Your task to perform on an android device: Add usb-c to usb-b to the cart on walmart.com, then select checkout. Image 0: 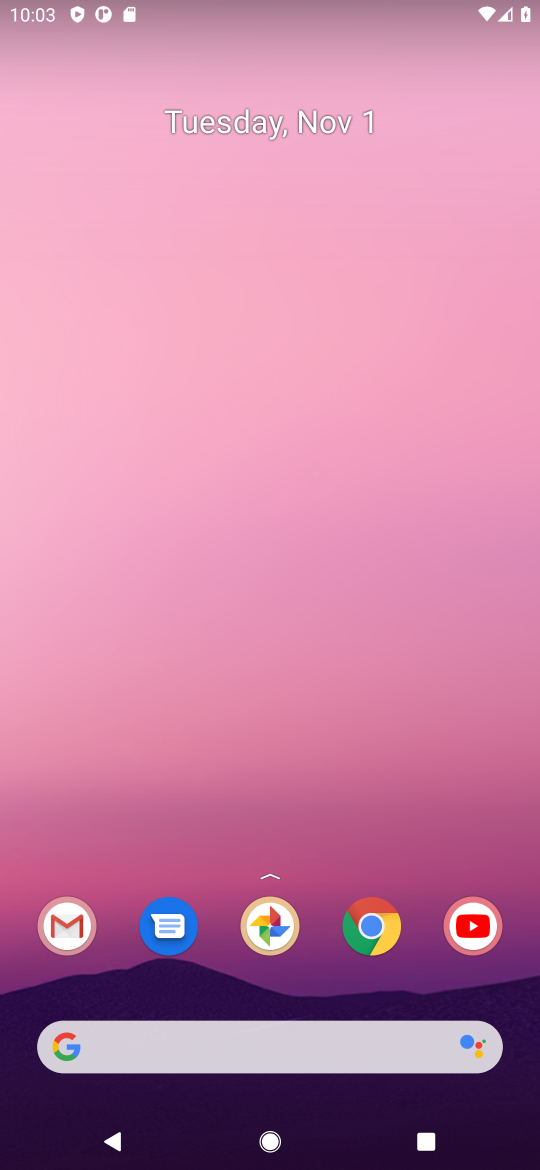
Step 0: press home button
Your task to perform on an android device: Add usb-c to usb-b to the cart on walmart.com, then select checkout. Image 1: 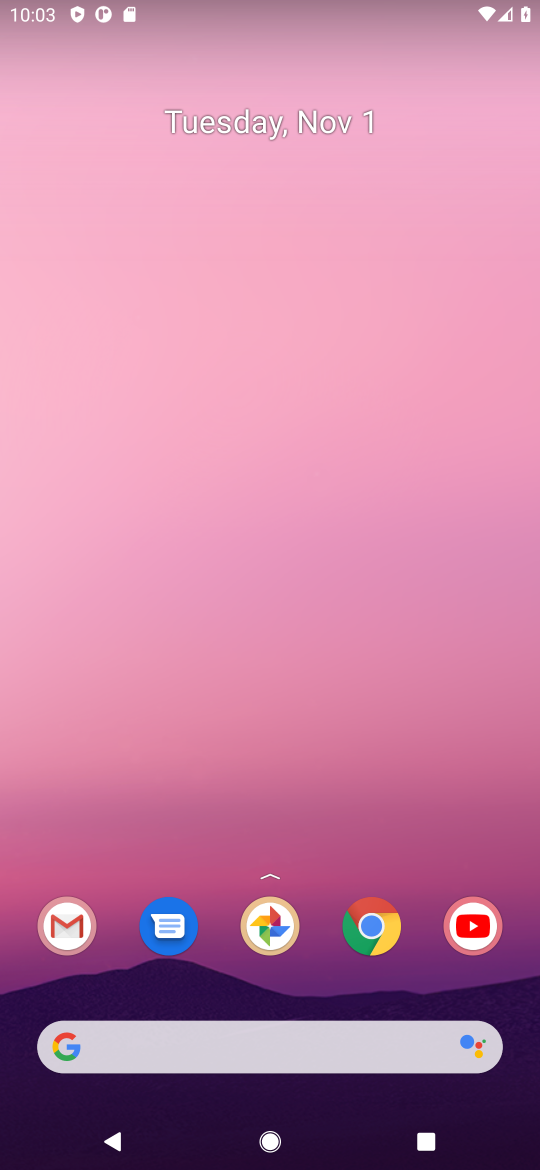
Step 1: click (381, 920)
Your task to perform on an android device: Add usb-c to usb-b to the cart on walmart.com, then select checkout. Image 2: 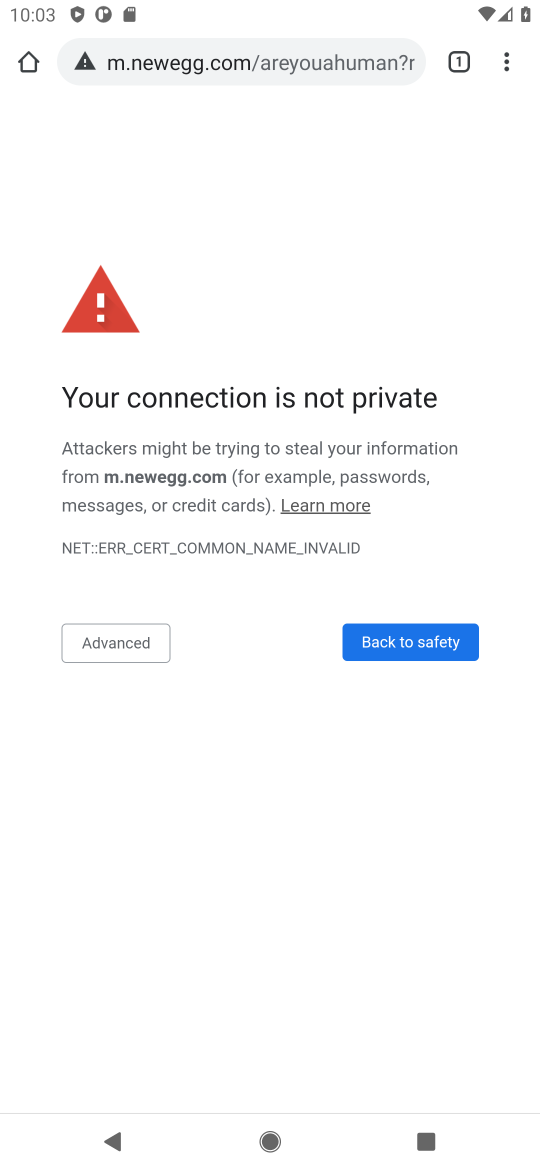
Step 2: click (150, 70)
Your task to perform on an android device: Add usb-c to usb-b to the cart on walmart.com, then select checkout. Image 3: 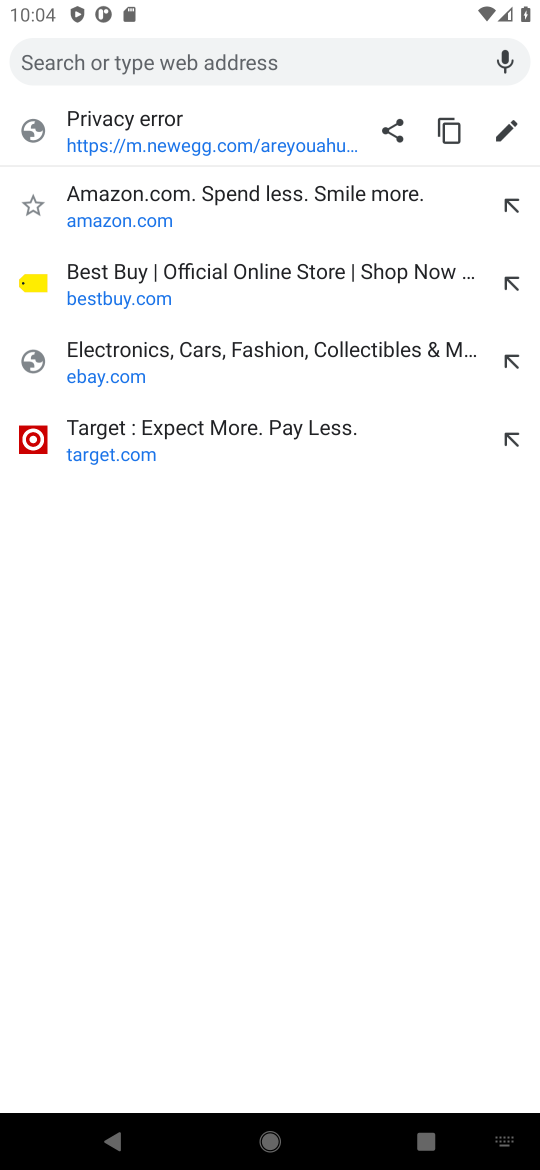
Step 3: type "walmart.com"
Your task to perform on an android device: Add usb-c to usb-b to the cart on walmart.com, then select checkout. Image 4: 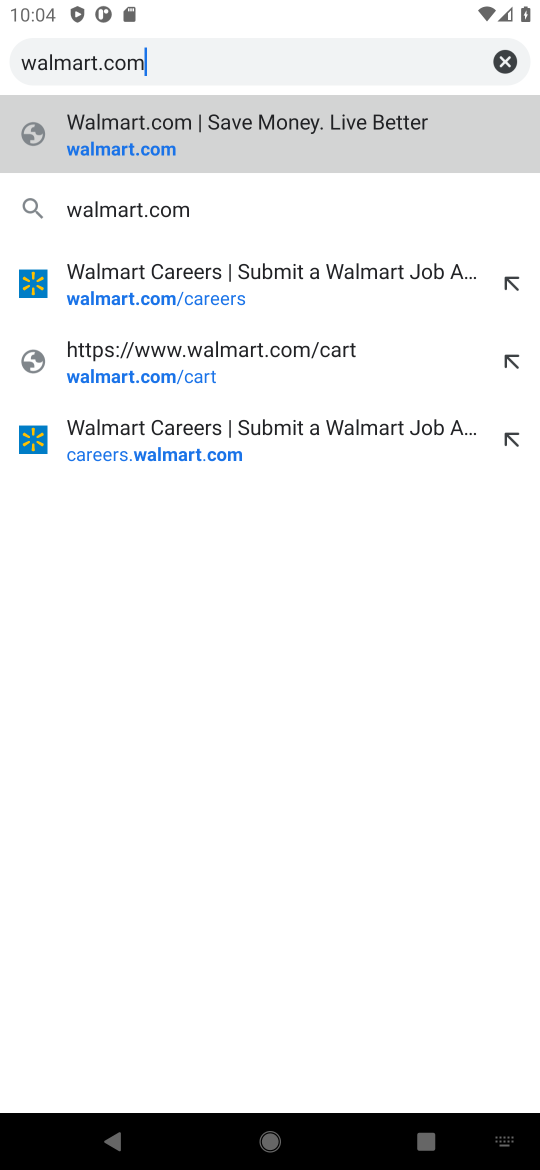
Step 4: click (176, 295)
Your task to perform on an android device: Add usb-c to usb-b to the cart on walmart.com, then select checkout. Image 5: 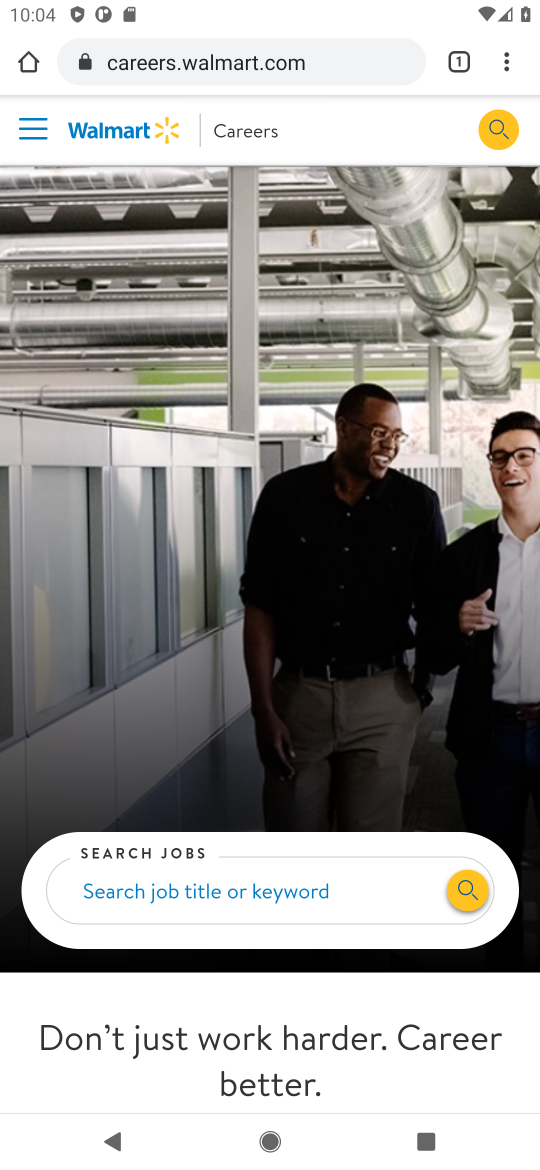
Step 5: click (18, 126)
Your task to perform on an android device: Add usb-c to usb-b to the cart on walmart.com, then select checkout. Image 6: 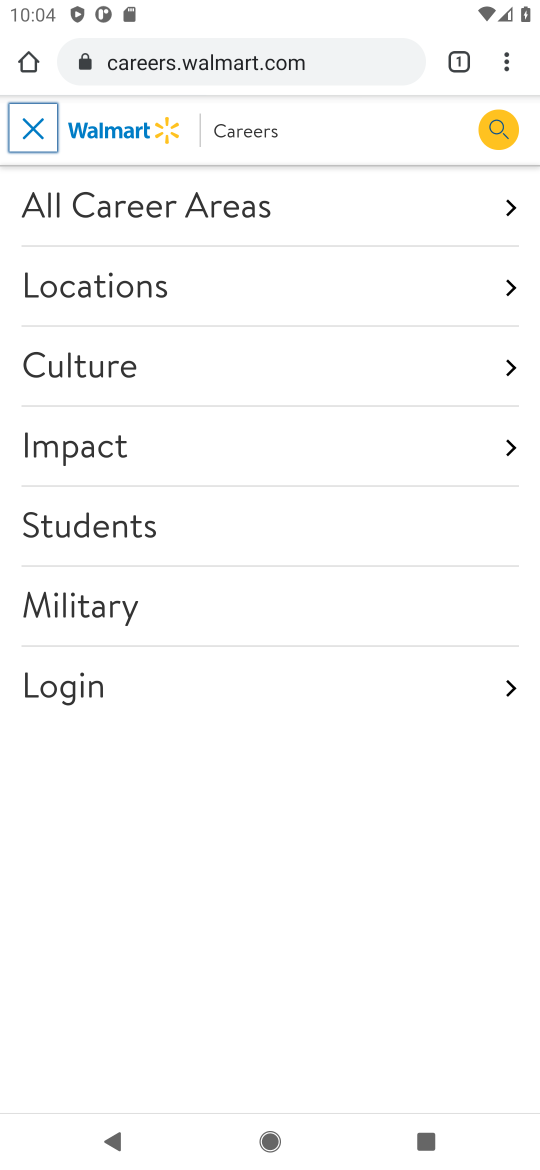
Step 6: click (488, 137)
Your task to perform on an android device: Add usb-c to usb-b to the cart on walmart.com, then select checkout. Image 7: 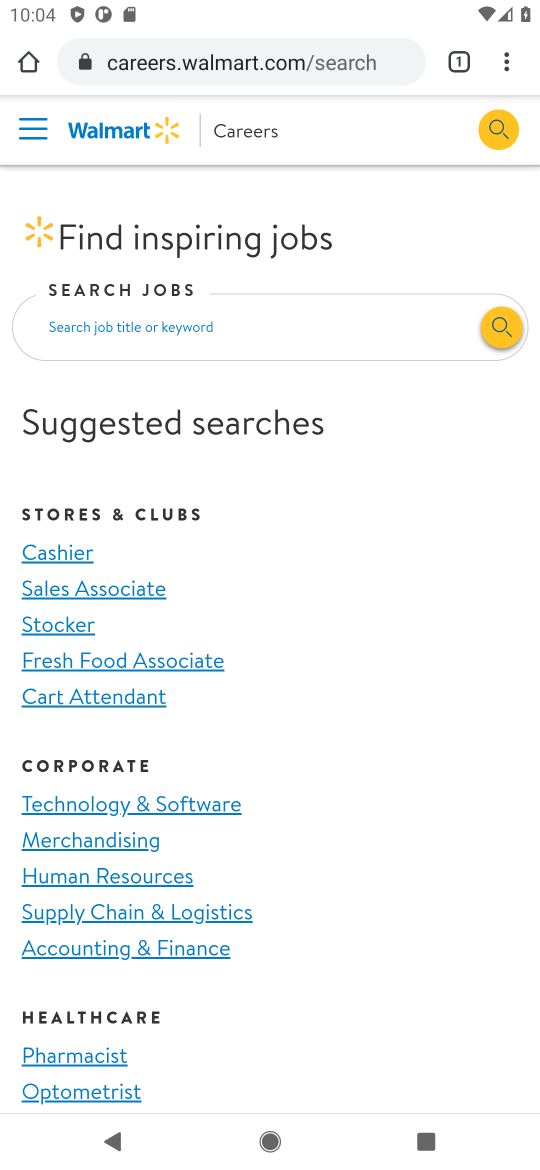
Step 7: click (497, 118)
Your task to perform on an android device: Add usb-c to usb-b to the cart on walmart.com, then select checkout. Image 8: 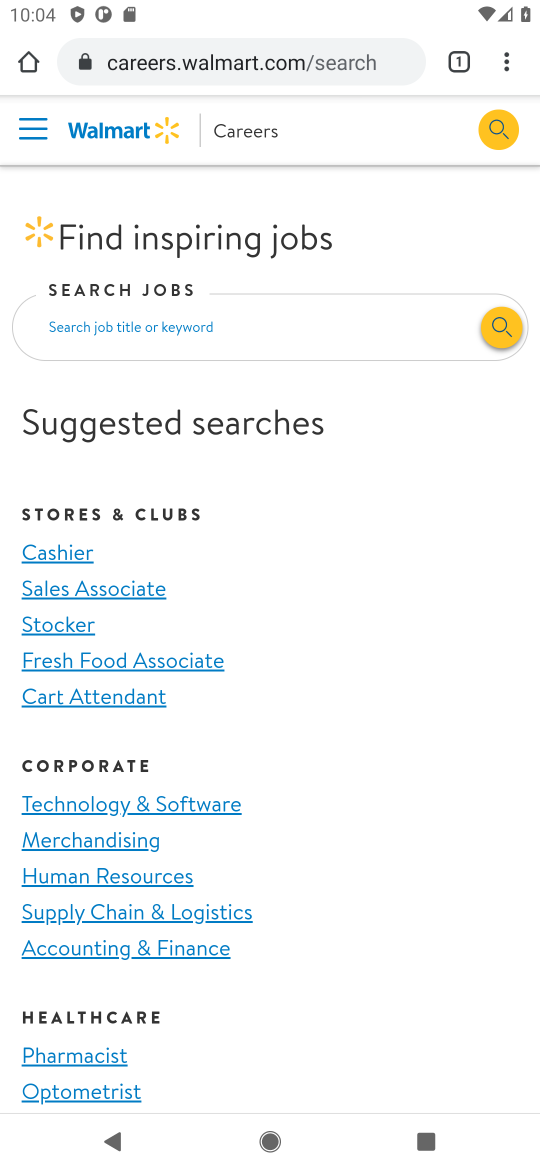
Step 8: press back button
Your task to perform on an android device: Add usb-c to usb-b to the cart on walmart.com, then select checkout. Image 9: 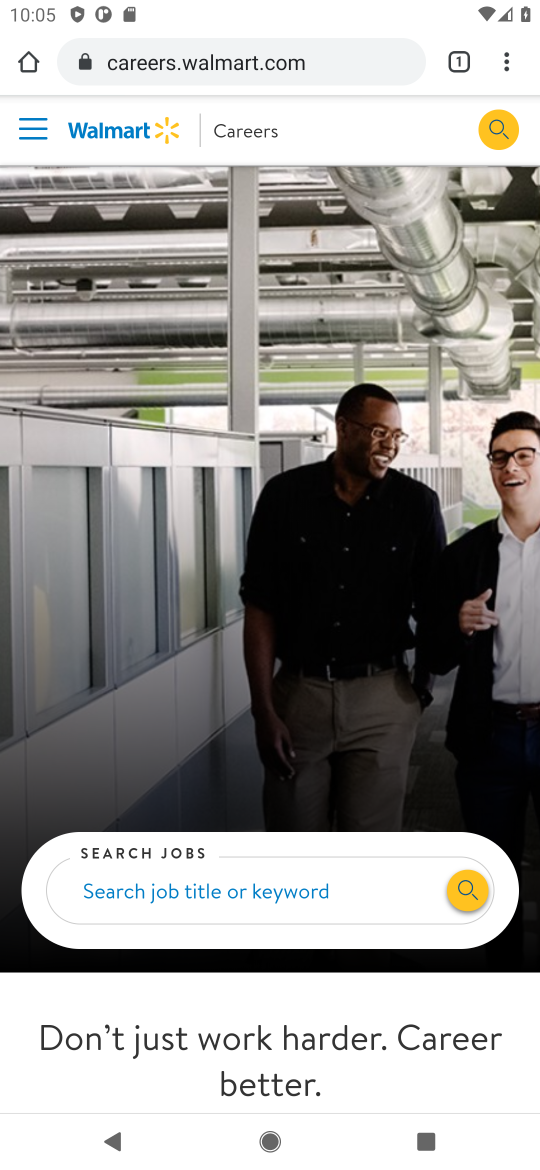
Step 9: press back button
Your task to perform on an android device: Add usb-c to usb-b to the cart on walmart.com, then select checkout. Image 10: 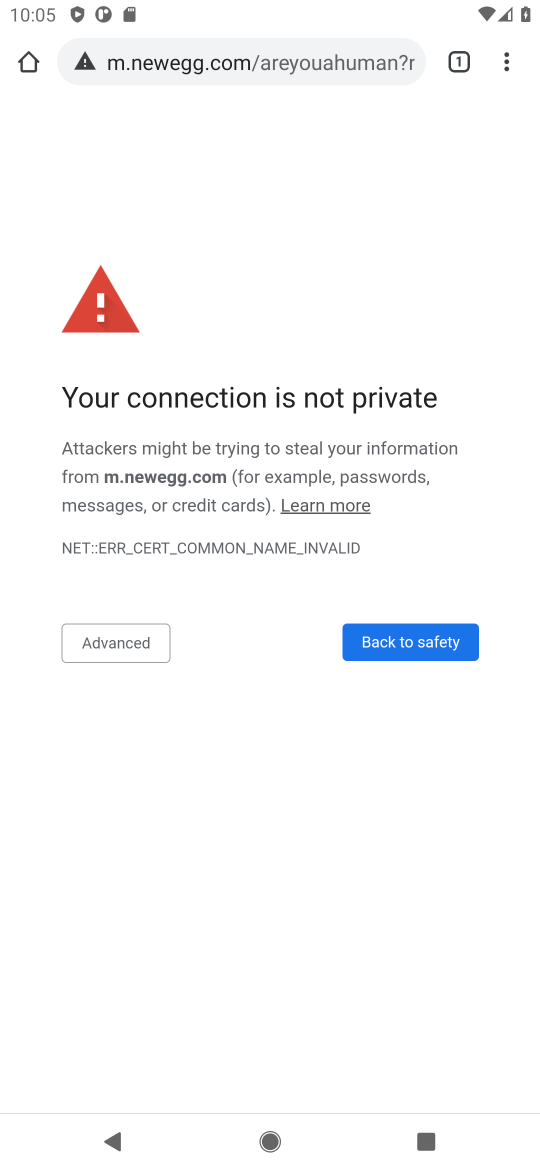
Step 10: press back button
Your task to perform on an android device: Add usb-c to usb-b to the cart on walmart.com, then select checkout. Image 11: 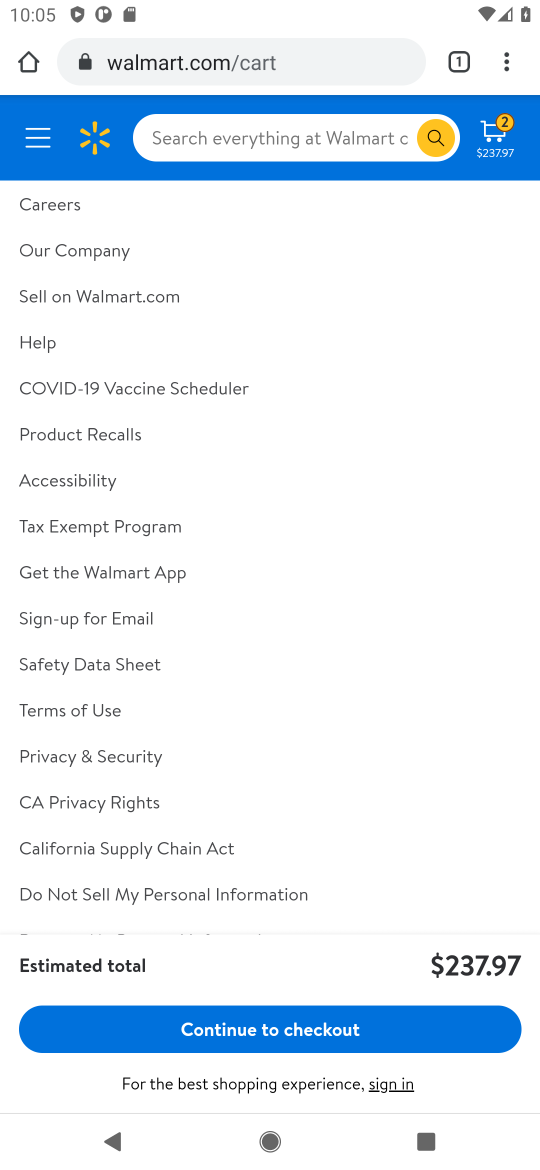
Step 11: press back button
Your task to perform on an android device: Add usb-c to usb-b to the cart on walmart.com, then select checkout. Image 12: 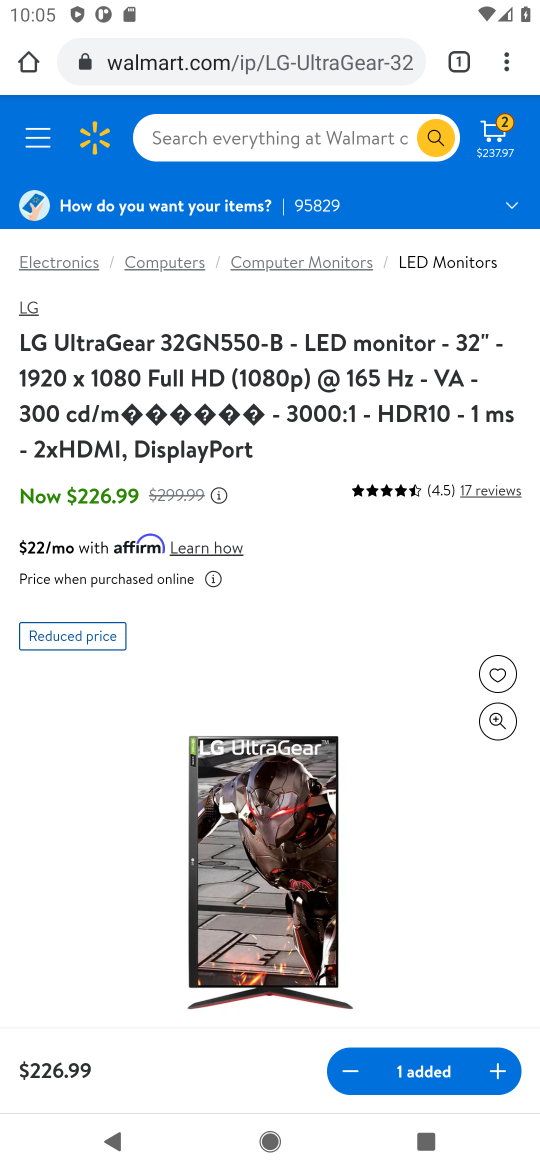
Step 12: press back button
Your task to perform on an android device: Add usb-c to usb-b to the cart on walmart.com, then select checkout. Image 13: 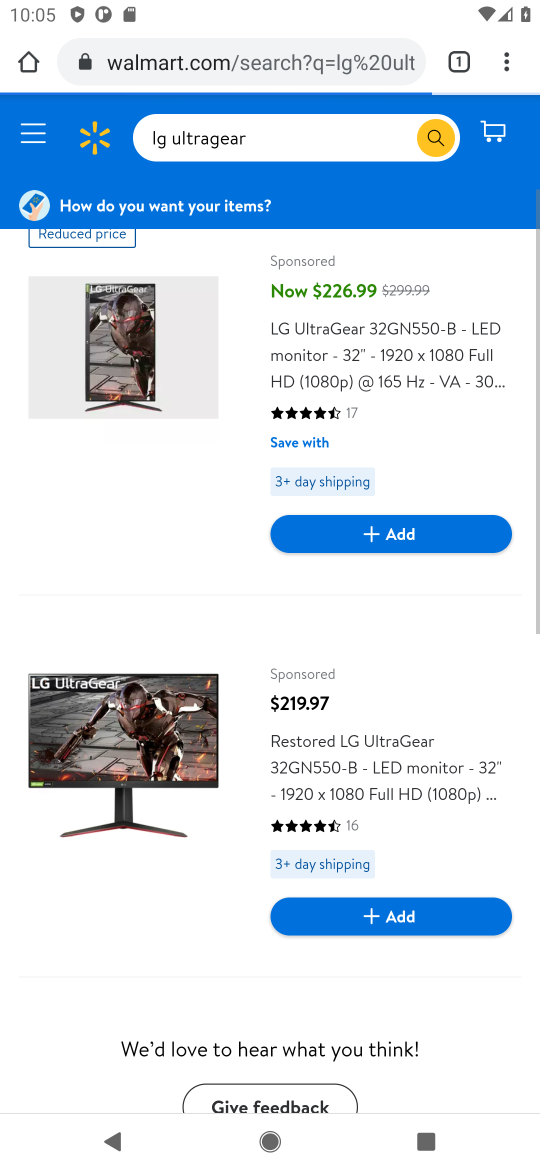
Step 13: press back button
Your task to perform on an android device: Add usb-c to usb-b to the cart on walmart.com, then select checkout. Image 14: 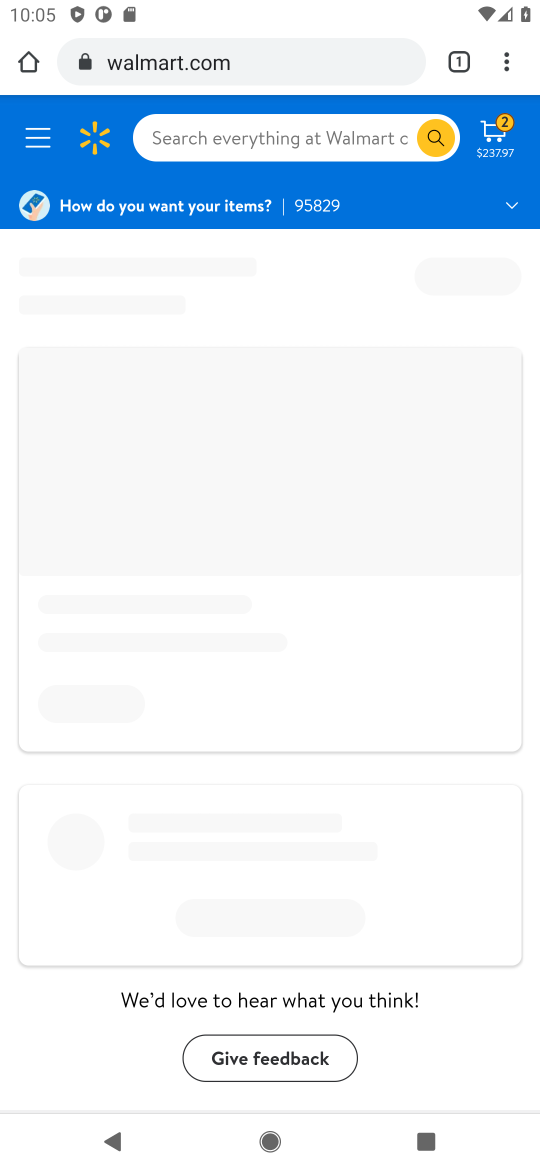
Step 14: click (219, 138)
Your task to perform on an android device: Add usb-c to usb-b to the cart on walmart.com, then select checkout. Image 15: 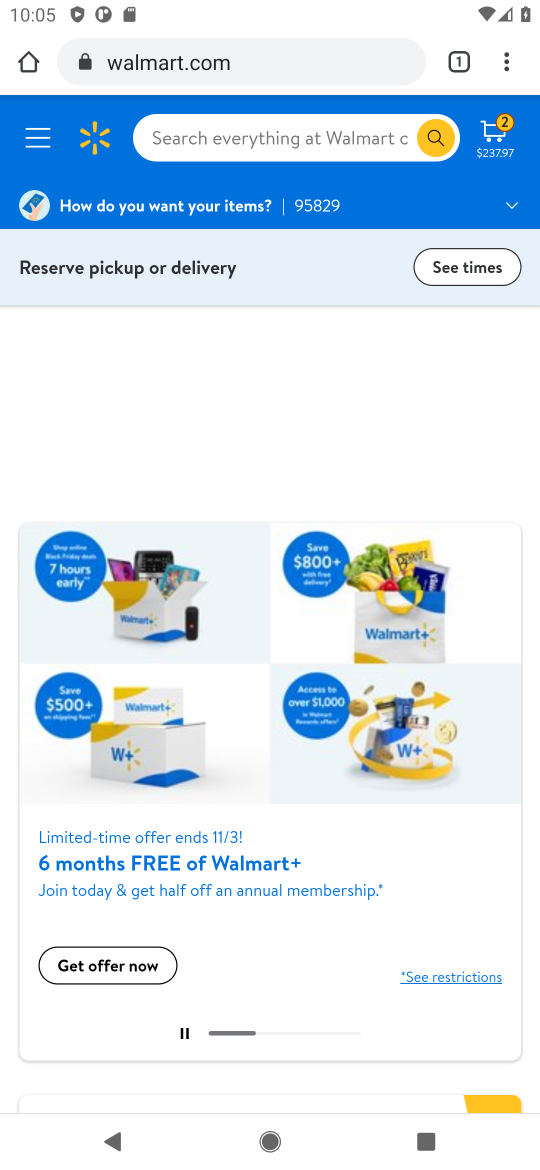
Step 15: click (266, 120)
Your task to perform on an android device: Add usb-c to usb-b to the cart on walmart.com, then select checkout. Image 16: 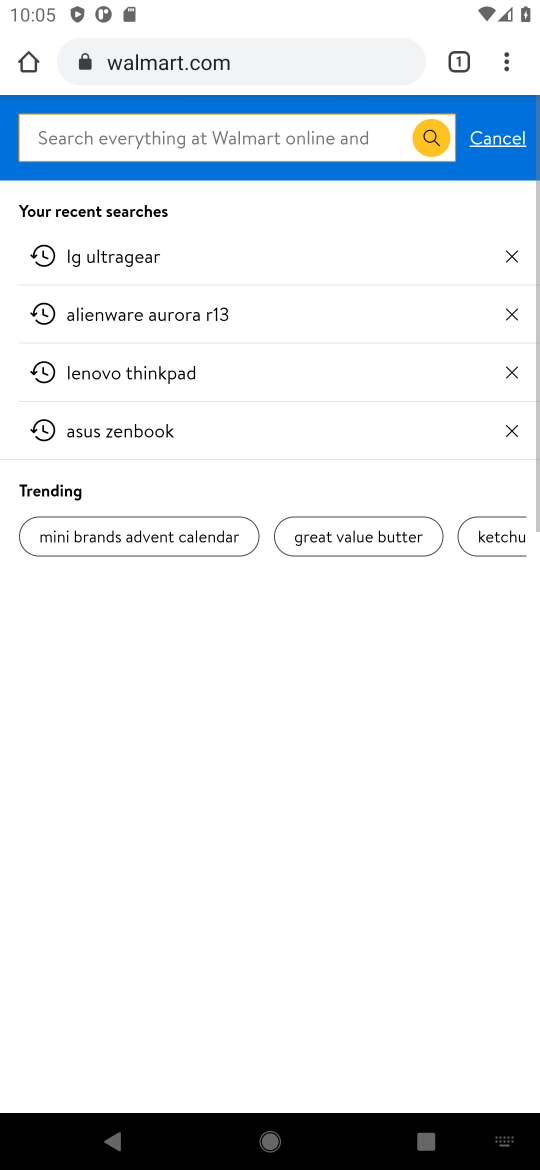
Step 16: click (183, 135)
Your task to perform on an android device: Add usb-c to usb-b to the cart on walmart.com, then select checkout. Image 17: 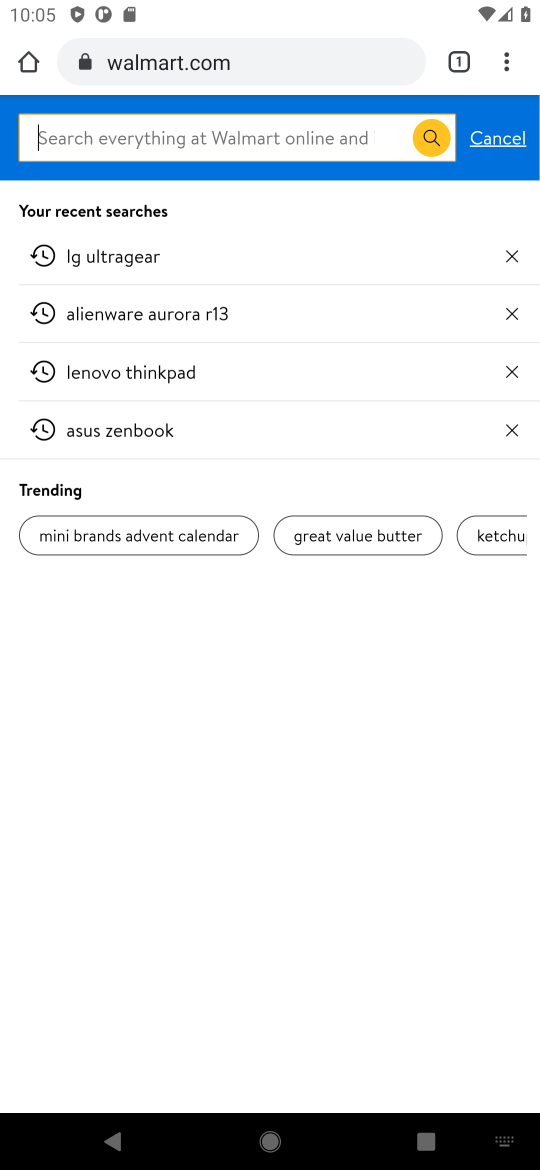
Step 17: type "usb -c to usb - b"
Your task to perform on an android device: Add usb-c to usb-b to the cart on walmart.com, then select checkout. Image 18: 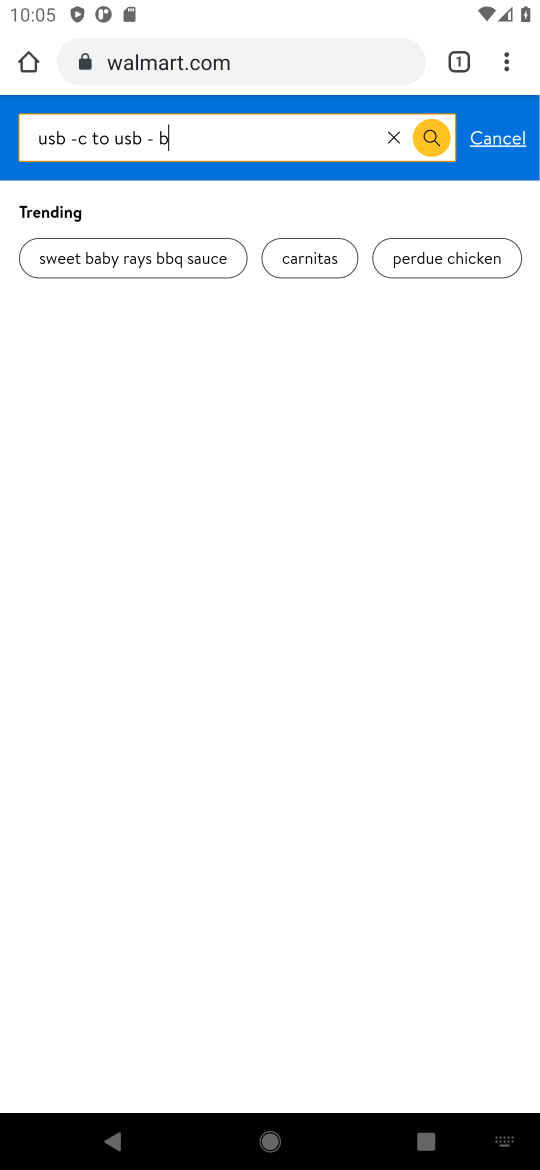
Step 18: type ""
Your task to perform on an android device: Add usb-c to usb-b to the cart on walmart.com, then select checkout. Image 19: 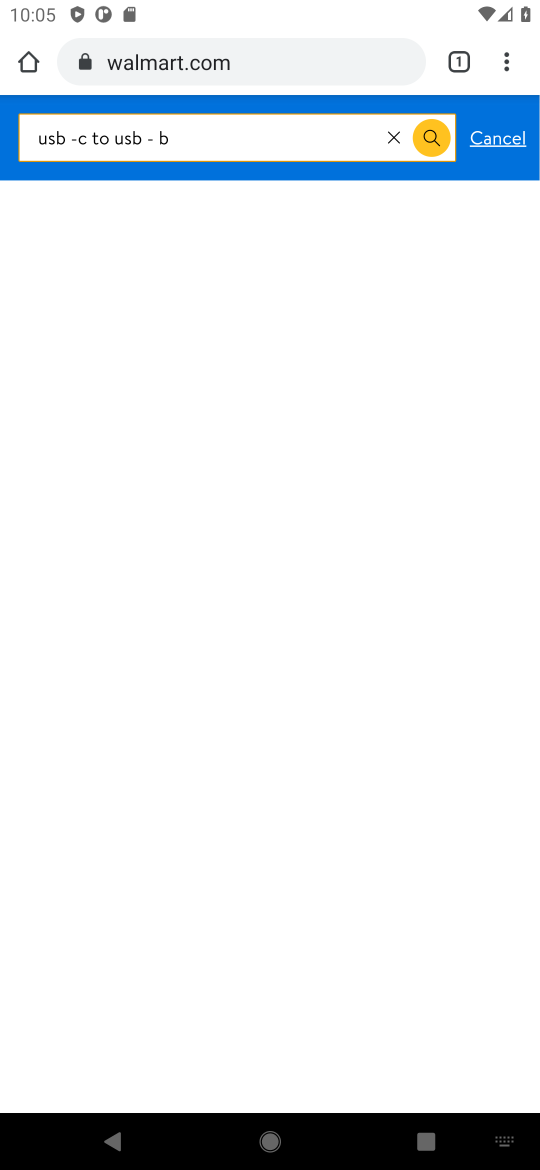
Step 19: click (440, 138)
Your task to perform on an android device: Add usb-c to usb-b to the cart on walmart.com, then select checkout. Image 20: 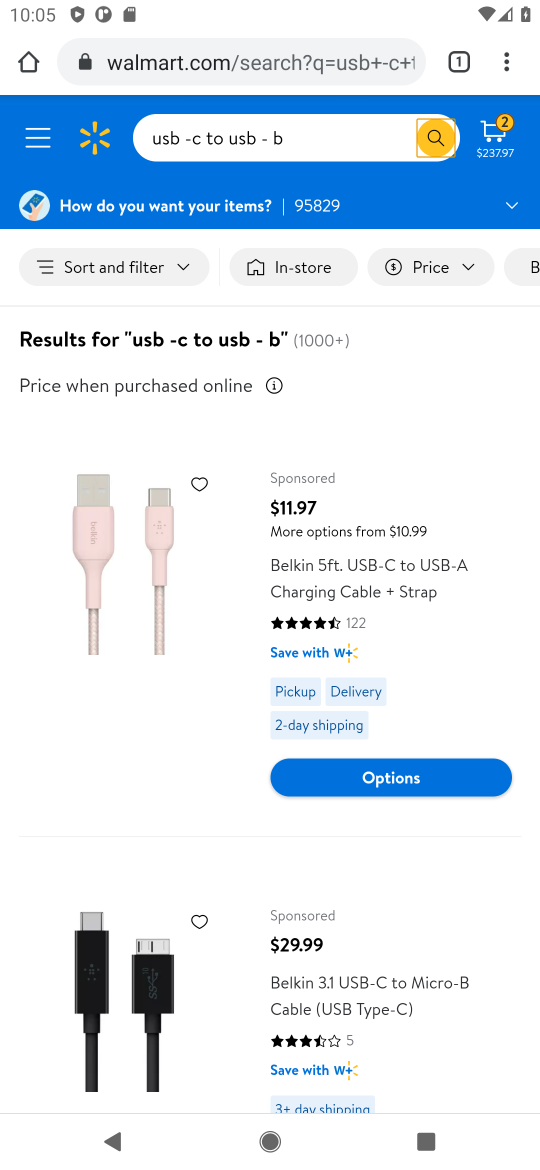
Step 20: drag from (286, 887) to (352, 379)
Your task to perform on an android device: Add usb-c to usb-b to the cart on walmart.com, then select checkout. Image 21: 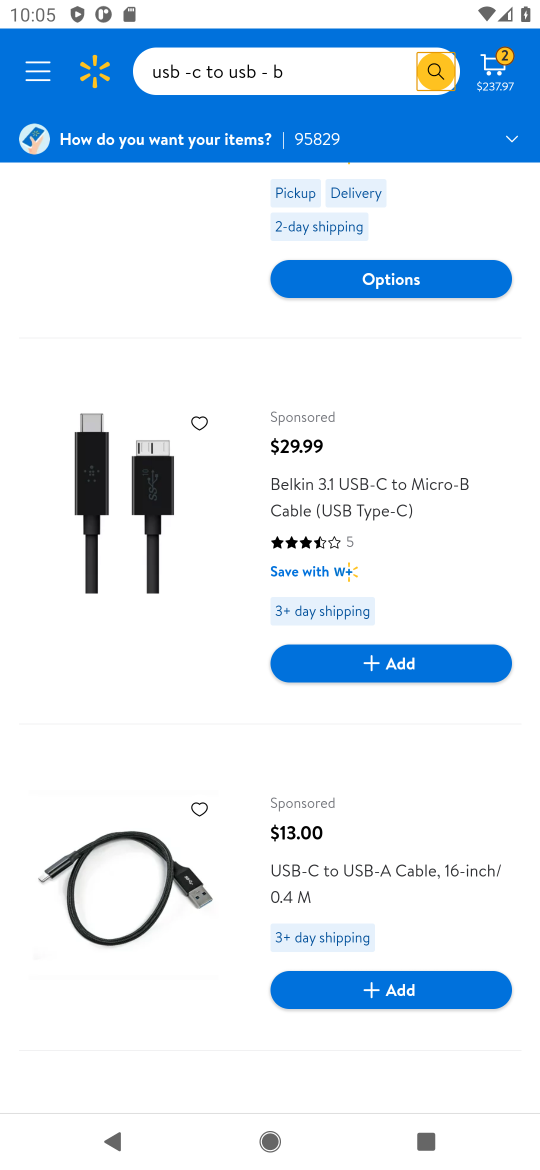
Step 21: drag from (193, 1067) to (198, 322)
Your task to perform on an android device: Add usb-c to usb-b to the cart on walmart.com, then select checkout. Image 22: 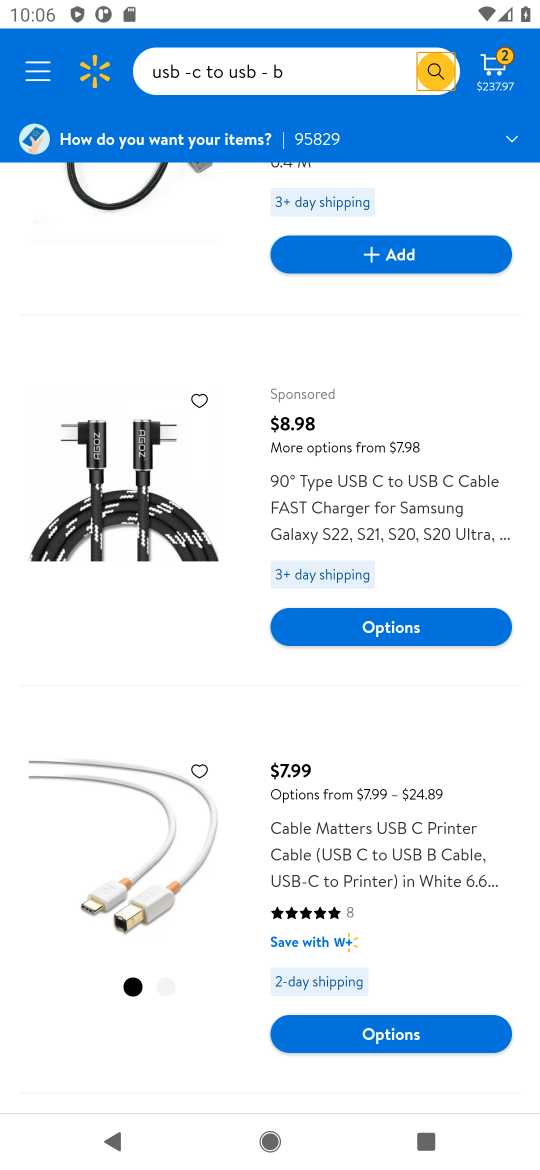
Step 22: drag from (436, 848) to (398, 434)
Your task to perform on an android device: Add usb-c to usb-b to the cart on walmart.com, then select checkout. Image 23: 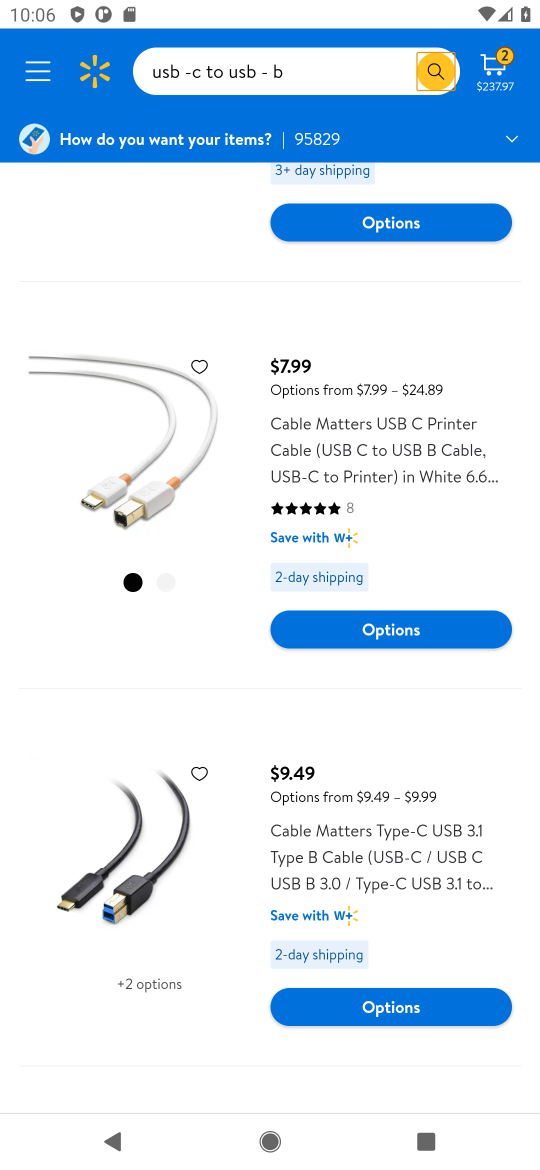
Step 23: drag from (315, 951) to (364, 299)
Your task to perform on an android device: Add usb-c to usb-b to the cart on walmart.com, then select checkout. Image 24: 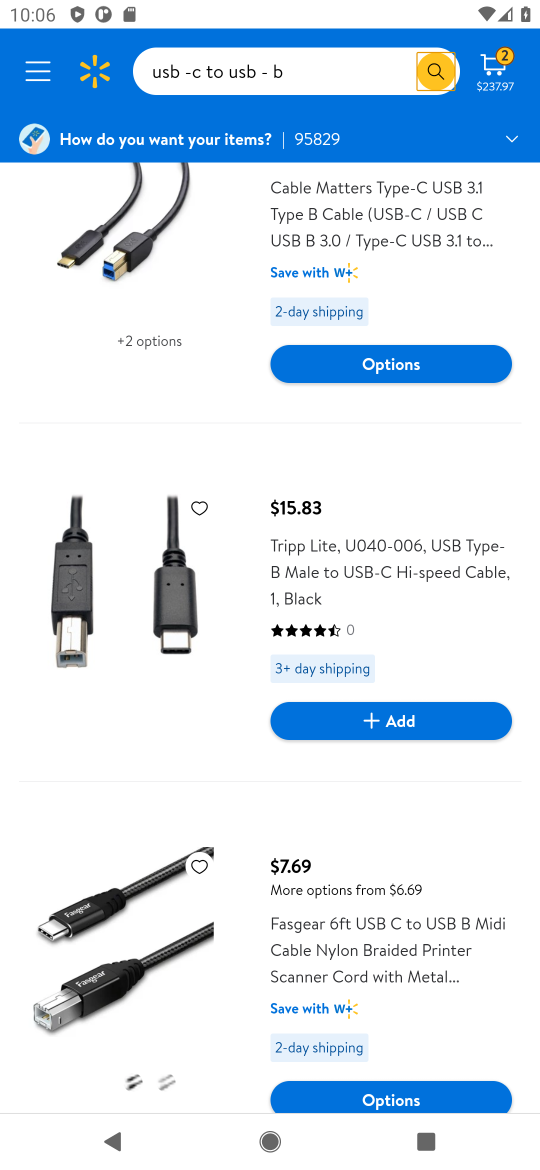
Step 24: drag from (396, 950) to (346, 299)
Your task to perform on an android device: Add usb-c to usb-b to the cart on walmart.com, then select checkout. Image 25: 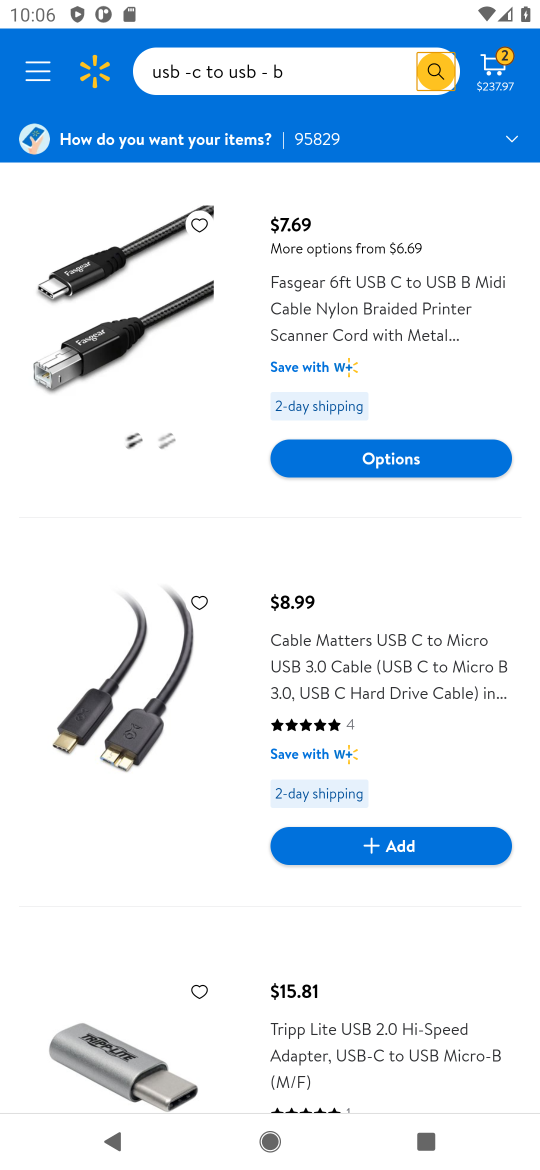
Step 25: drag from (329, 932) to (353, 364)
Your task to perform on an android device: Add usb-c to usb-b to the cart on walmart.com, then select checkout. Image 26: 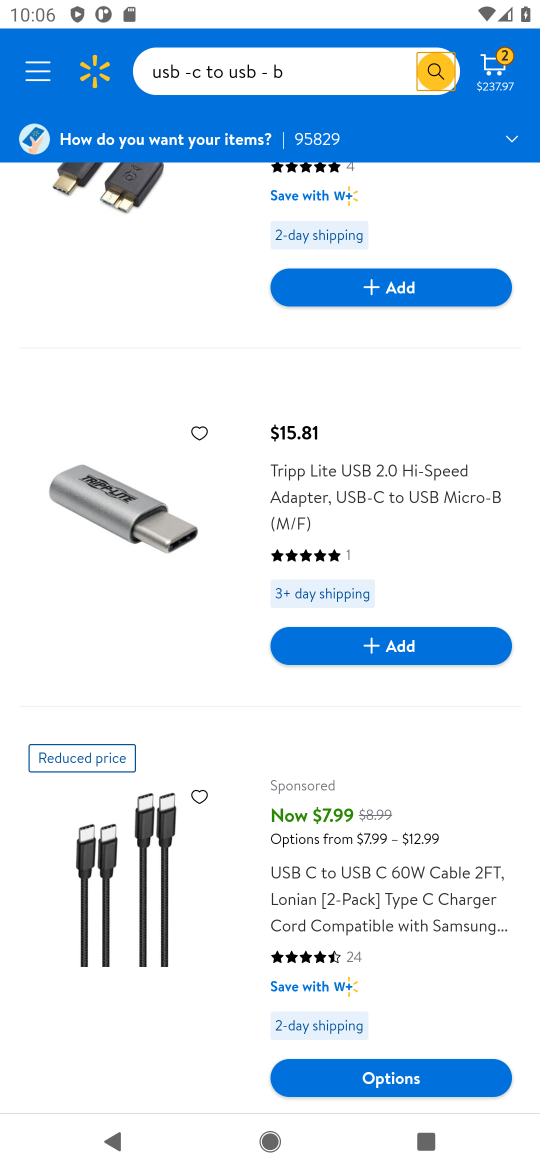
Step 26: drag from (356, 917) to (377, 405)
Your task to perform on an android device: Add usb-c to usb-b to the cart on walmart.com, then select checkout. Image 27: 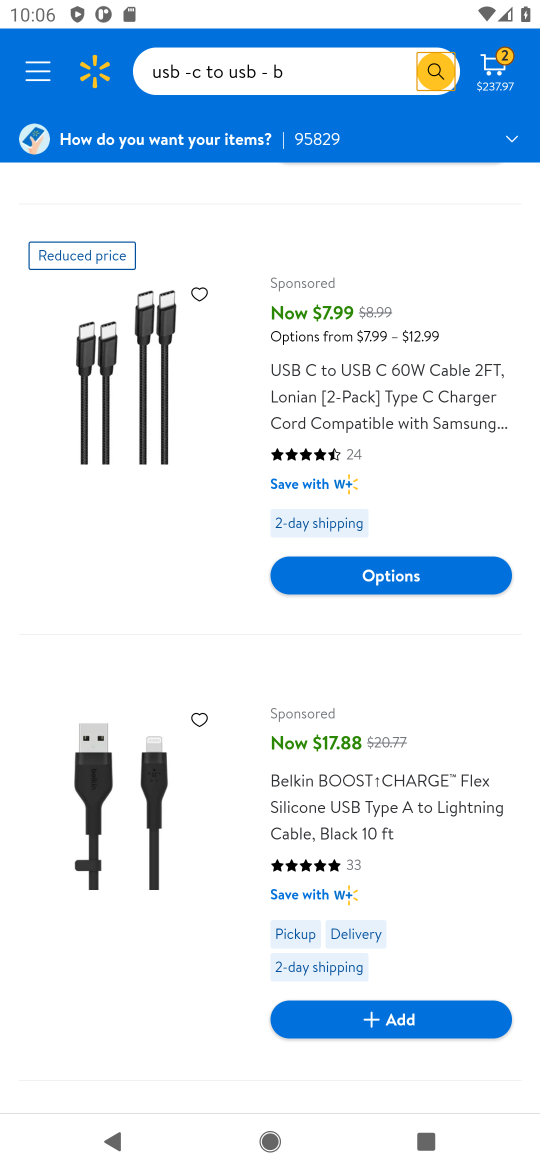
Step 27: drag from (417, 881) to (419, 296)
Your task to perform on an android device: Add usb-c to usb-b to the cart on walmart.com, then select checkout. Image 28: 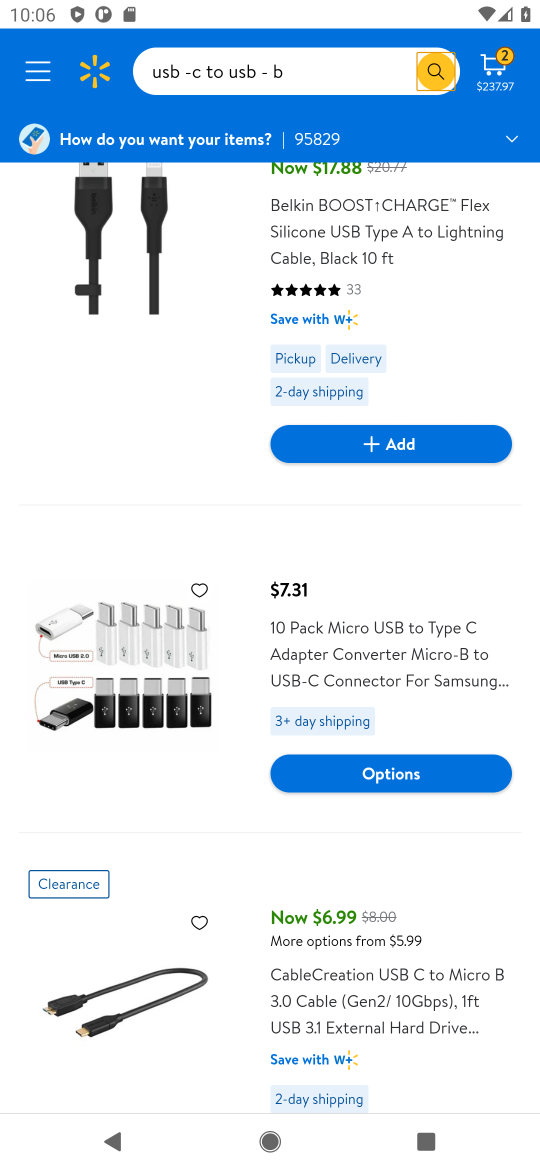
Step 28: click (401, 653)
Your task to perform on an android device: Add usb-c to usb-b to the cart on walmart.com, then select checkout. Image 29: 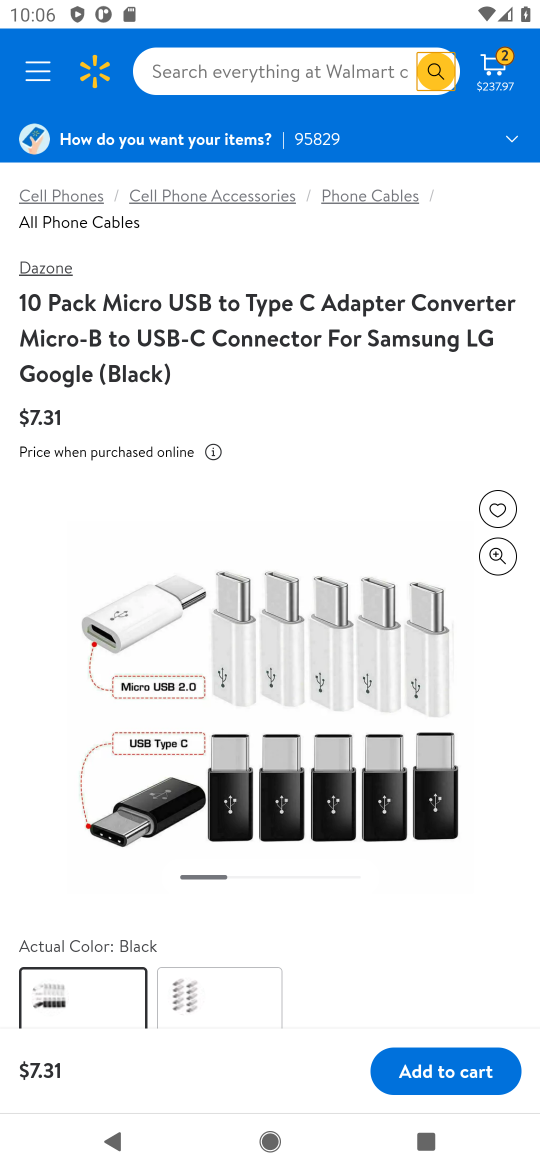
Step 29: drag from (348, 822) to (375, 384)
Your task to perform on an android device: Add usb-c to usb-b to the cart on walmart.com, then select checkout. Image 30: 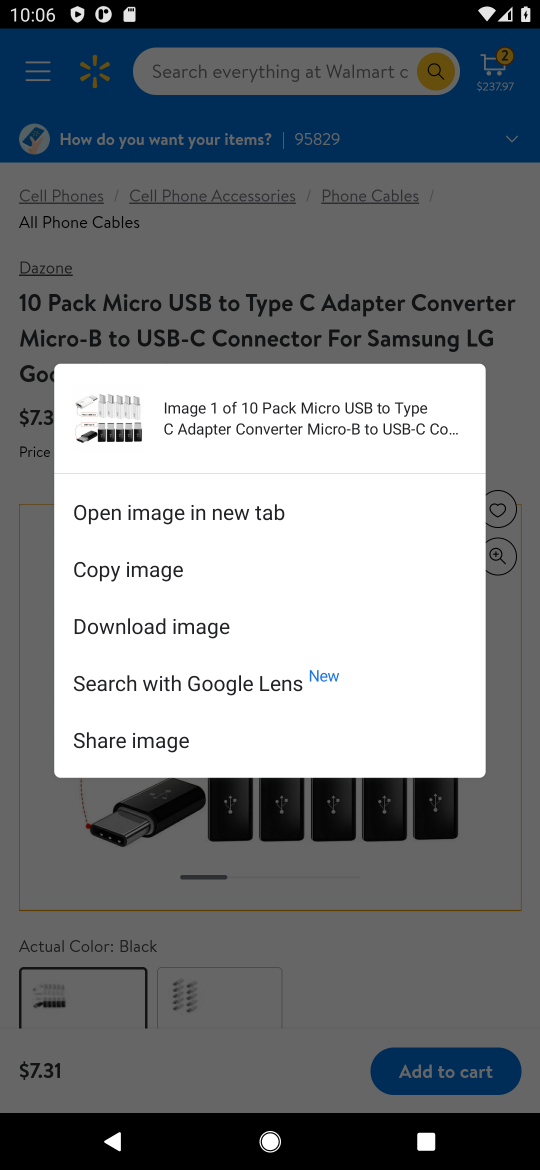
Step 30: click (461, 849)
Your task to perform on an android device: Add usb-c to usb-b to the cart on walmart.com, then select checkout. Image 31: 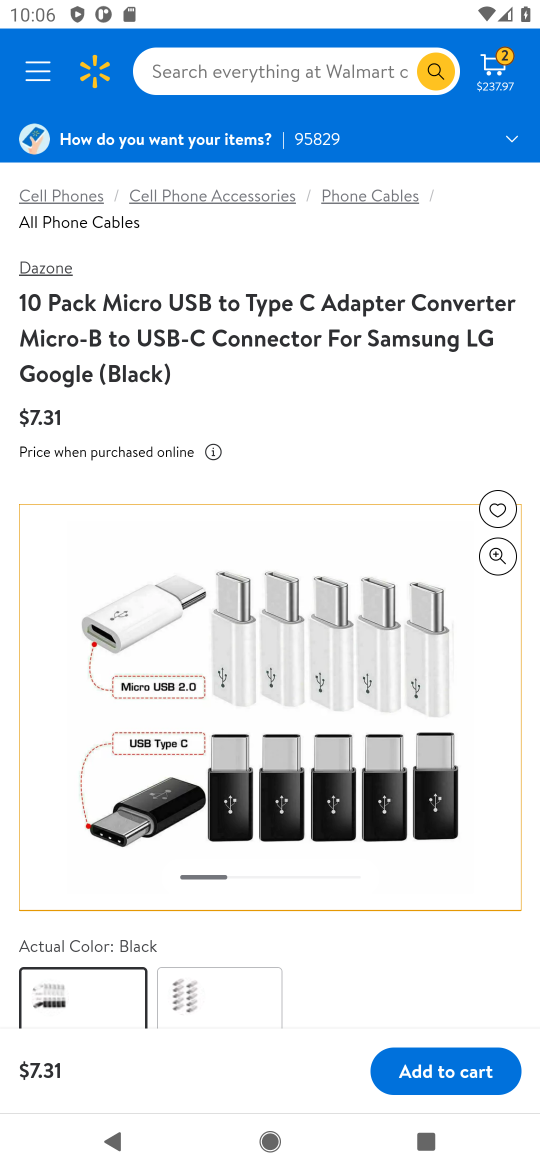
Step 31: drag from (418, 851) to (483, 189)
Your task to perform on an android device: Add usb-c to usb-b to the cart on walmart.com, then select checkout. Image 32: 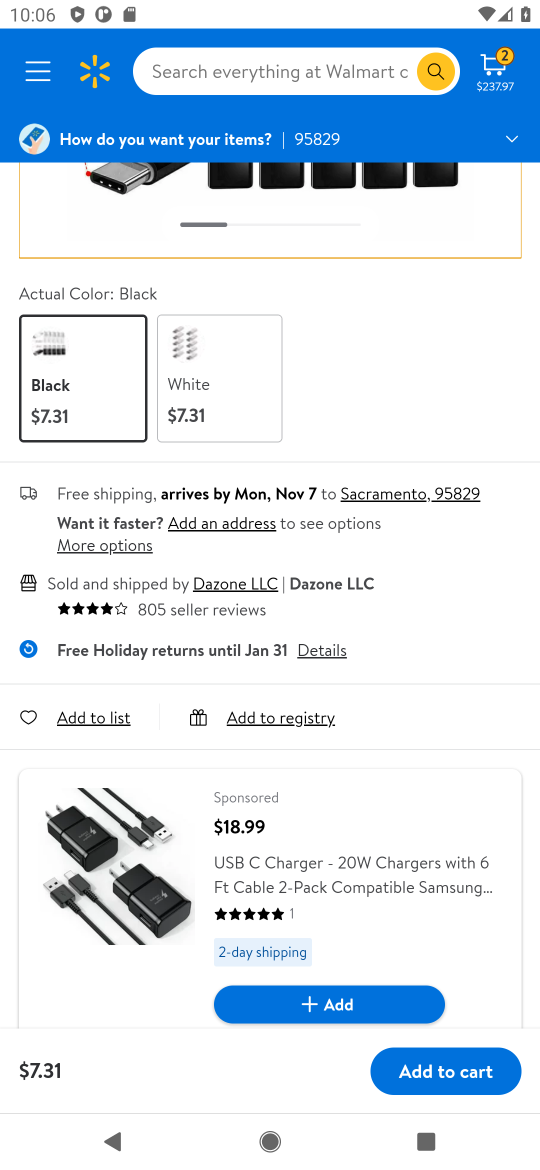
Step 32: drag from (258, 856) to (335, 342)
Your task to perform on an android device: Add usb-c to usb-b to the cart on walmart.com, then select checkout. Image 33: 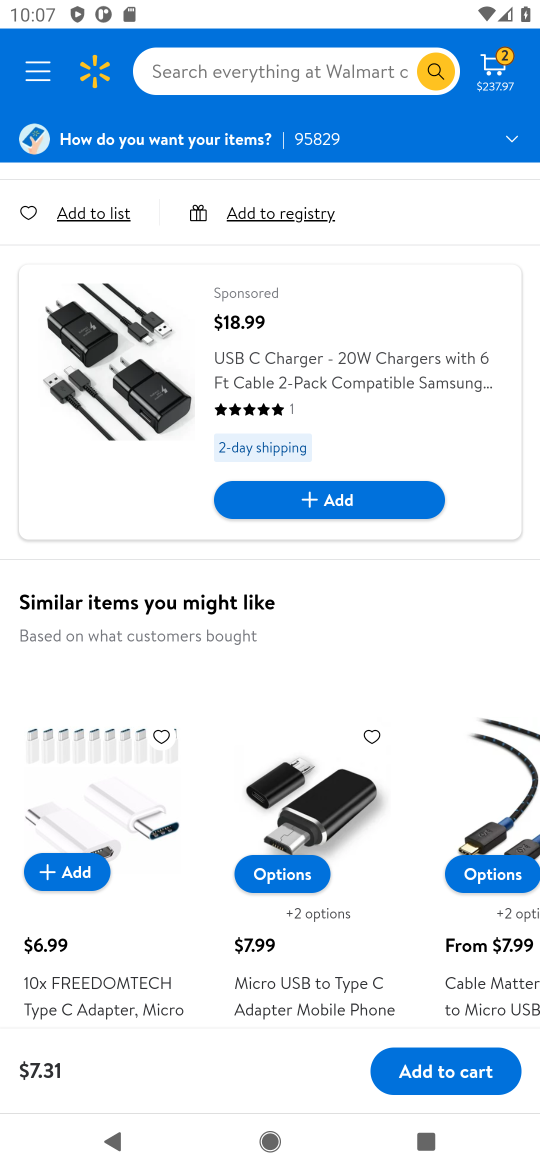
Step 33: click (354, 481)
Your task to perform on an android device: Add usb-c to usb-b to the cart on walmart.com, then select checkout. Image 34: 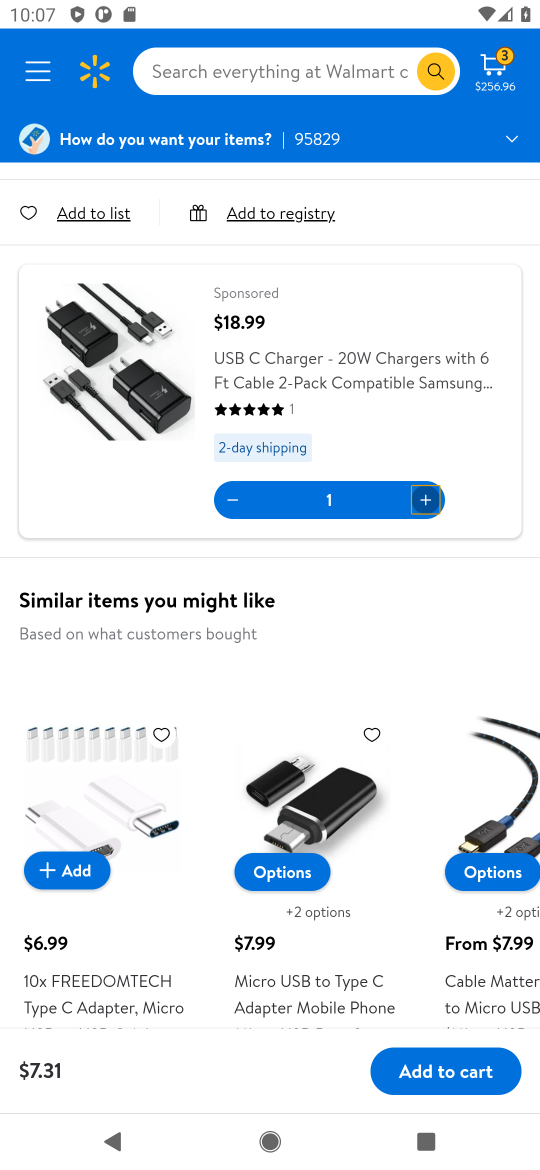
Step 34: click (417, 503)
Your task to perform on an android device: Add usb-c to usb-b to the cart on walmart.com, then select checkout. Image 35: 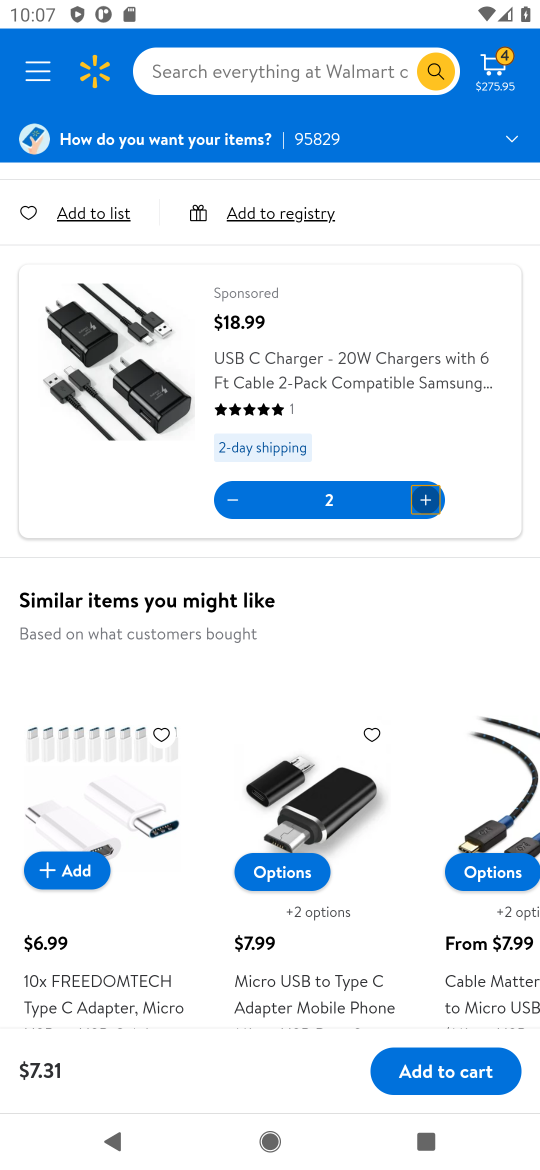
Step 35: task complete